Your task to perform on an android device: refresh tabs in the chrome app Image 0: 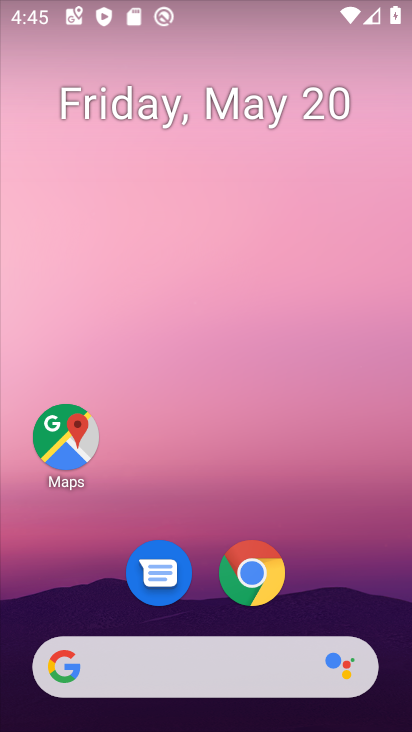
Step 0: click (253, 569)
Your task to perform on an android device: refresh tabs in the chrome app Image 1: 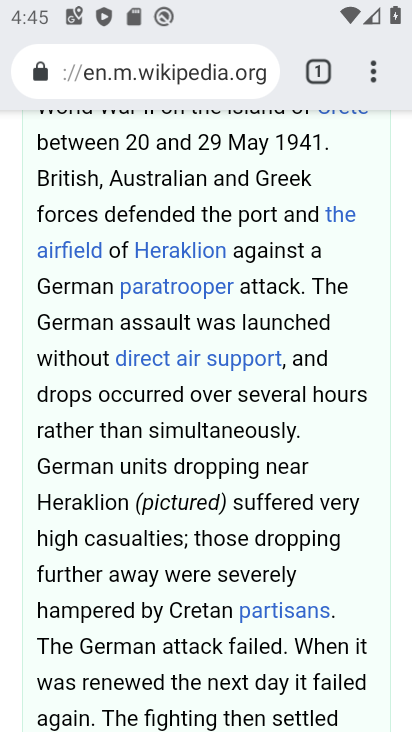
Step 1: click (370, 70)
Your task to perform on an android device: refresh tabs in the chrome app Image 2: 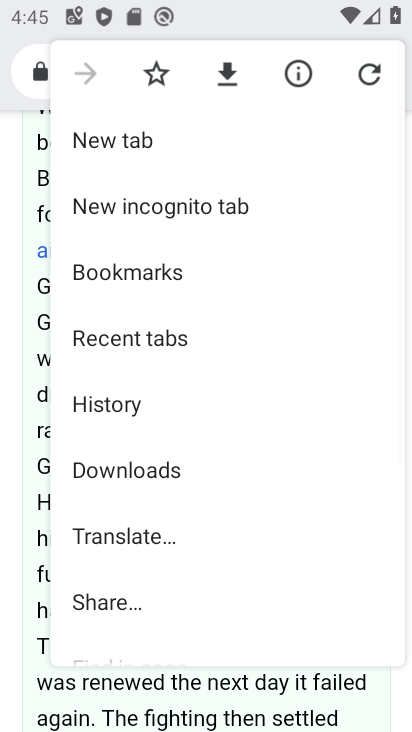
Step 2: click (365, 78)
Your task to perform on an android device: refresh tabs in the chrome app Image 3: 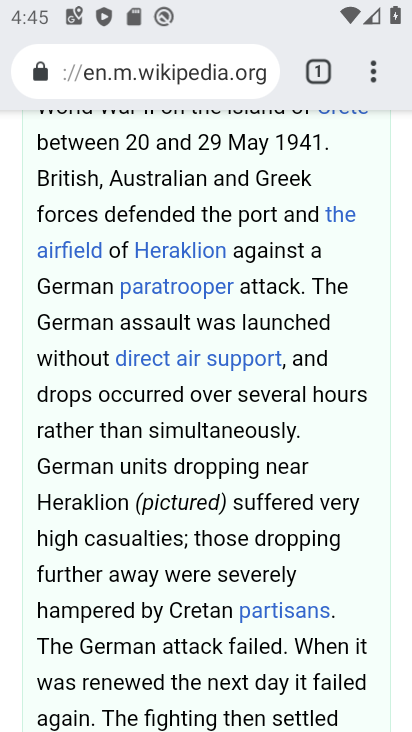
Step 3: task complete